Your task to perform on an android device: clear all cookies in the chrome app Image 0: 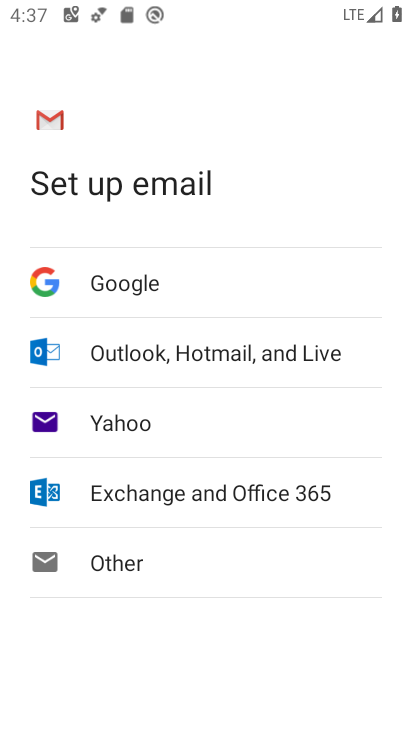
Step 0: press back button
Your task to perform on an android device: clear all cookies in the chrome app Image 1: 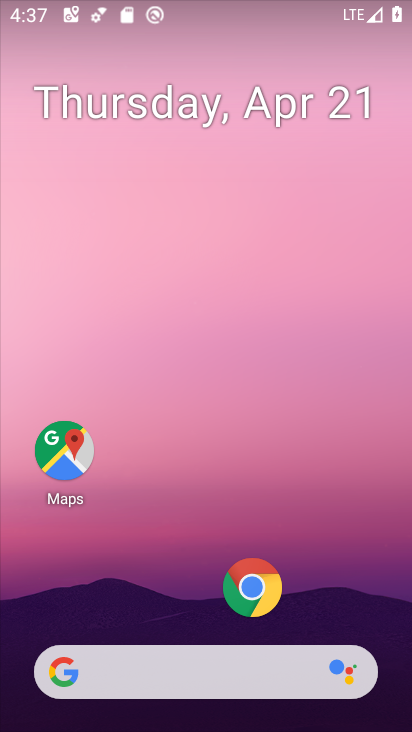
Step 1: click (251, 596)
Your task to perform on an android device: clear all cookies in the chrome app Image 2: 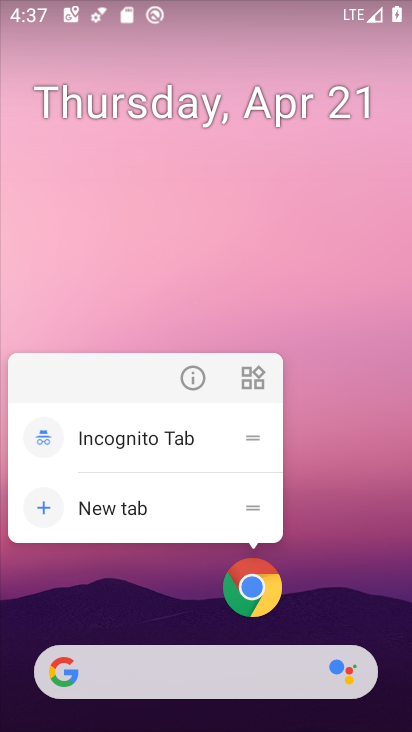
Step 2: click (252, 590)
Your task to perform on an android device: clear all cookies in the chrome app Image 3: 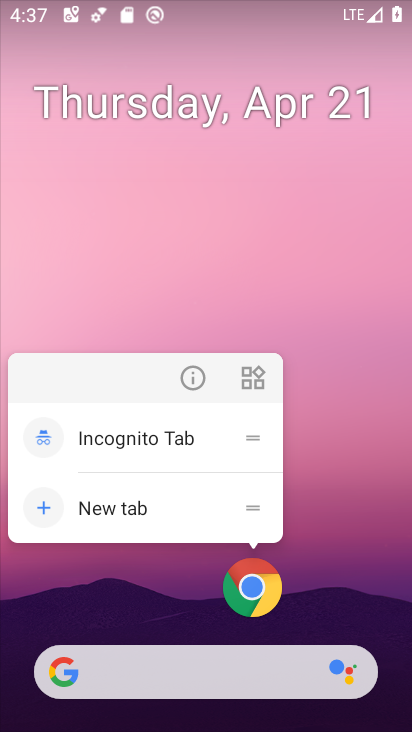
Step 3: click (255, 612)
Your task to perform on an android device: clear all cookies in the chrome app Image 4: 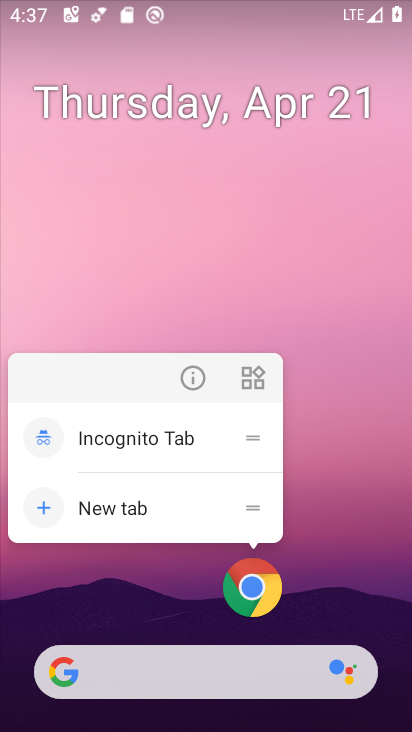
Step 4: click (258, 585)
Your task to perform on an android device: clear all cookies in the chrome app Image 5: 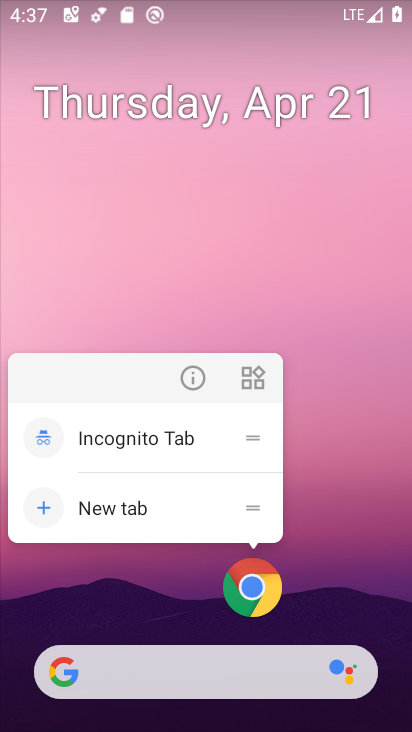
Step 5: click (261, 589)
Your task to perform on an android device: clear all cookies in the chrome app Image 6: 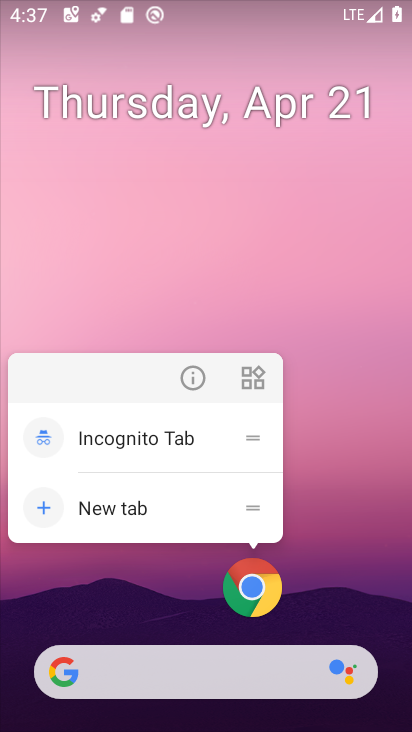
Step 6: click (250, 600)
Your task to perform on an android device: clear all cookies in the chrome app Image 7: 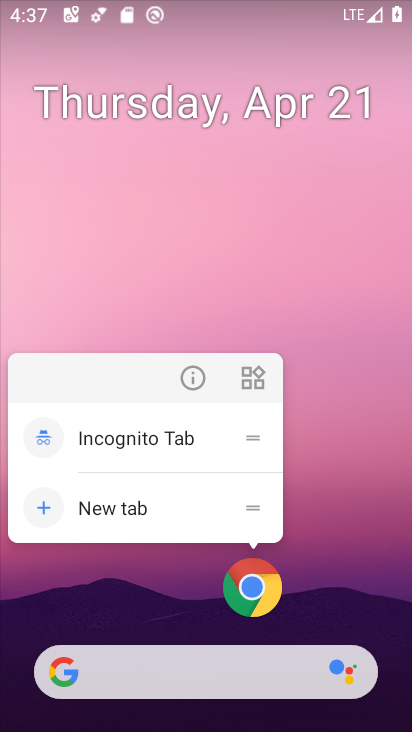
Step 7: click (258, 591)
Your task to perform on an android device: clear all cookies in the chrome app Image 8: 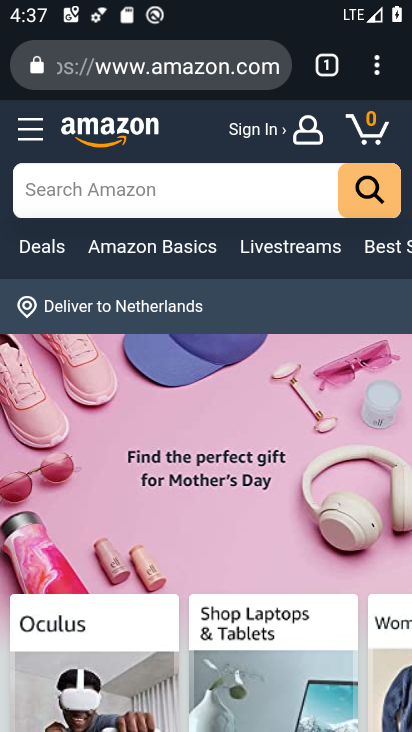
Step 8: drag from (385, 76) to (228, 659)
Your task to perform on an android device: clear all cookies in the chrome app Image 9: 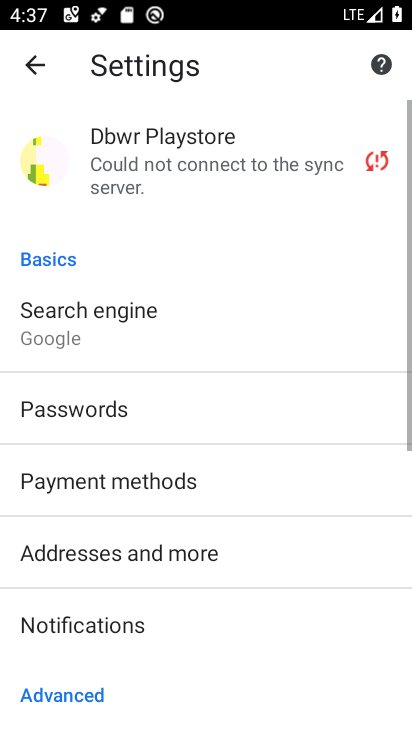
Step 9: drag from (148, 653) to (354, 101)
Your task to perform on an android device: clear all cookies in the chrome app Image 10: 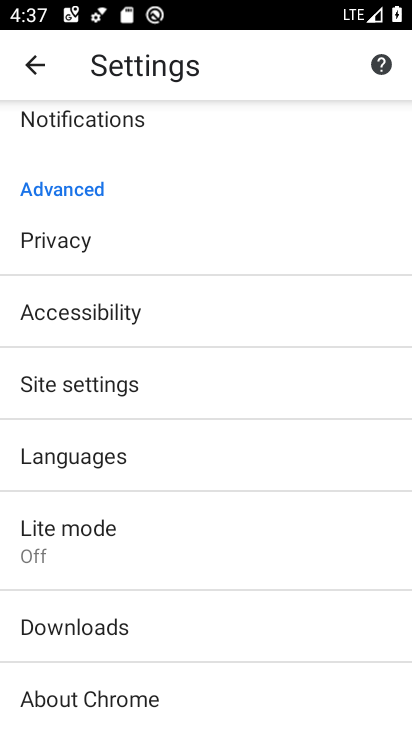
Step 10: drag from (140, 678) to (282, 256)
Your task to perform on an android device: clear all cookies in the chrome app Image 11: 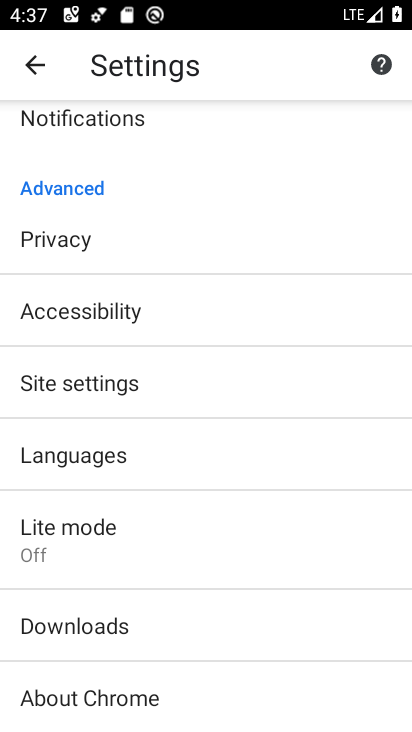
Step 11: click (134, 257)
Your task to perform on an android device: clear all cookies in the chrome app Image 12: 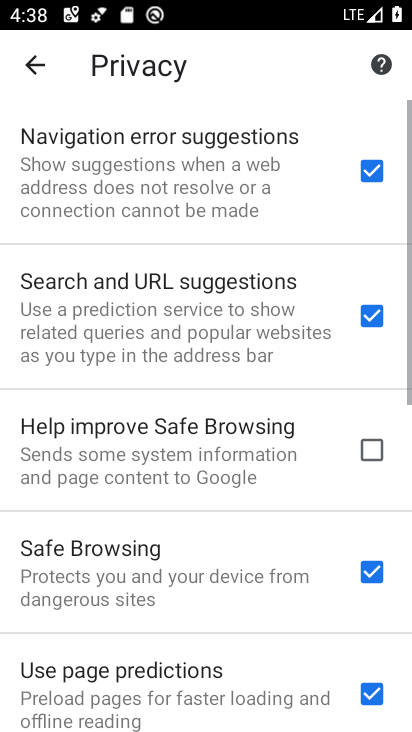
Step 12: drag from (149, 693) to (334, 21)
Your task to perform on an android device: clear all cookies in the chrome app Image 13: 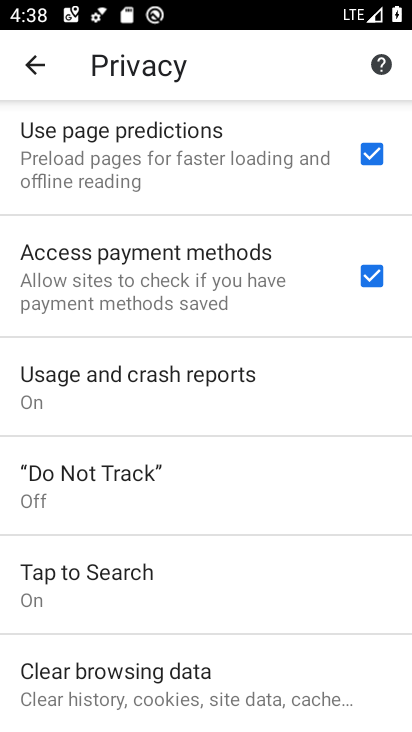
Step 13: click (178, 666)
Your task to perform on an android device: clear all cookies in the chrome app Image 14: 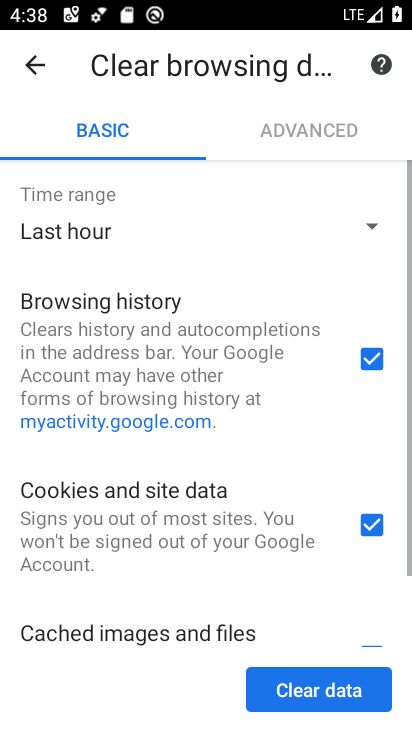
Step 14: click (369, 362)
Your task to perform on an android device: clear all cookies in the chrome app Image 15: 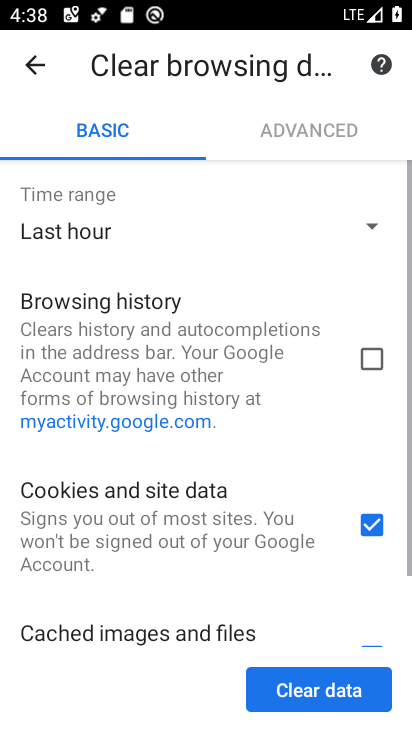
Step 15: drag from (186, 623) to (253, 287)
Your task to perform on an android device: clear all cookies in the chrome app Image 16: 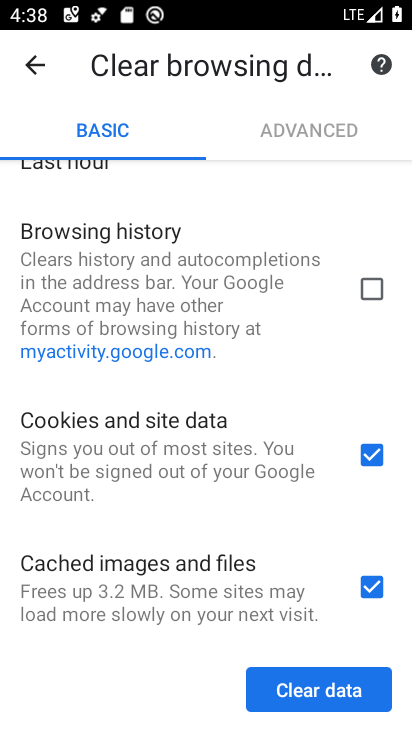
Step 16: click (372, 588)
Your task to perform on an android device: clear all cookies in the chrome app Image 17: 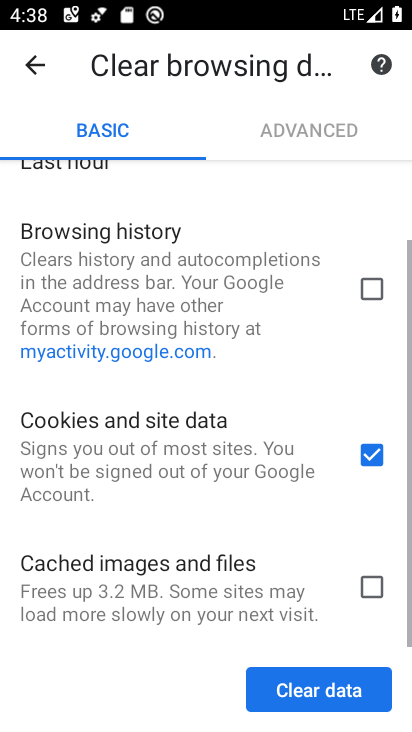
Step 17: click (347, 695)
Your task to perform on an android device: clear all cookies in the chrome app Image 18: 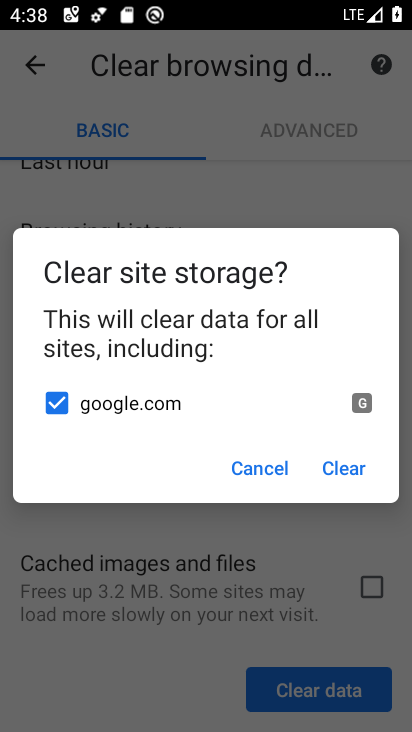
Step 18: click (353, 470)
Your task to perform on an android device: clear all cookies in the chrome app Image 19: 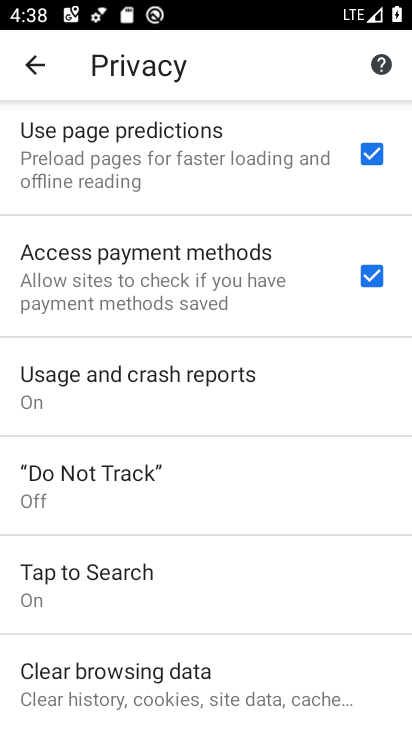
Step 19: task complete